Your task to perform on an android device: toggle data saver in the chrome app Image 0: 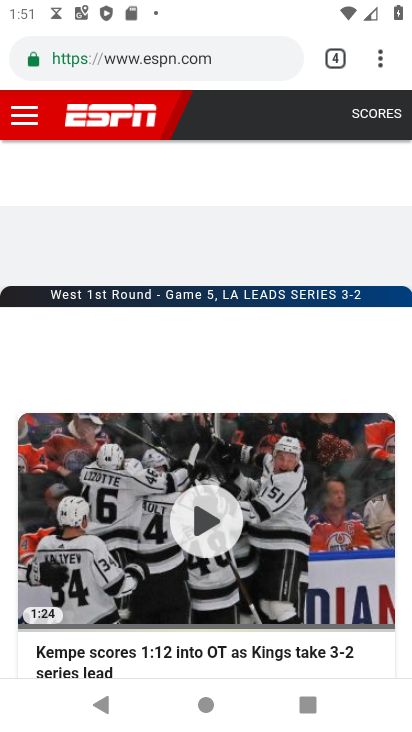
Step 0: press home button
Your task to perform on an android device: toggle data saver in the chrome app Image 1: 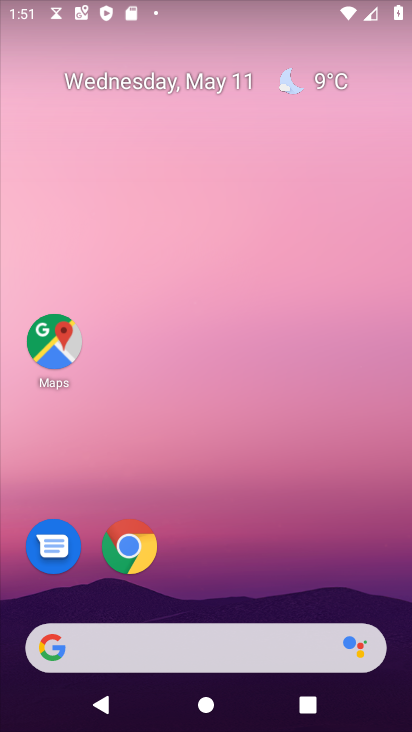
Step 1: drag from (316, 663) to (335, 51)
Your task to perform on an android device: toggle data saver in the chrome app Image 2: 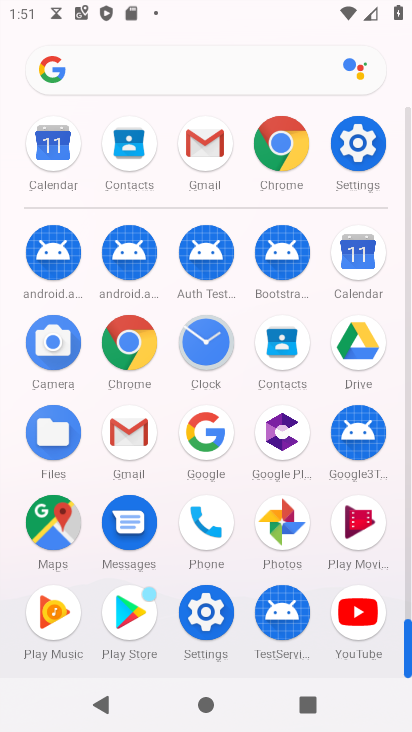
Step 2: click (145, 353)
Your task to perform on an android device: toggle data saver in the chrome app Image 3: 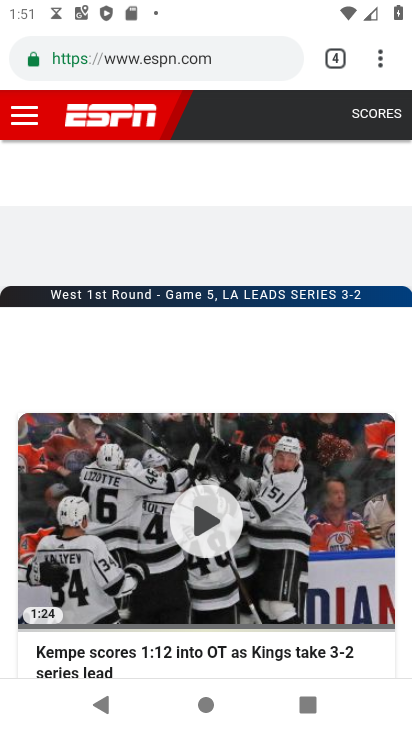
Step 3: click (384, 59)
Your task to perform on an android device: toggle data saver in the chrome app Image 4: 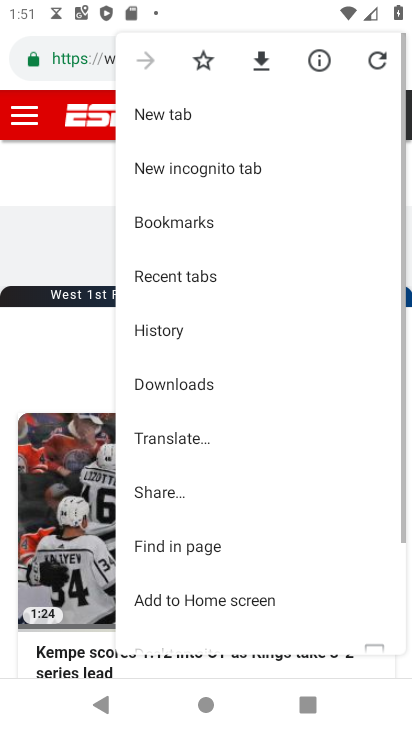
Step 4: drag from (229, 600) to (238, 239)
Your task to perform on an android device: toggle data saver in the chrome app Image 5: 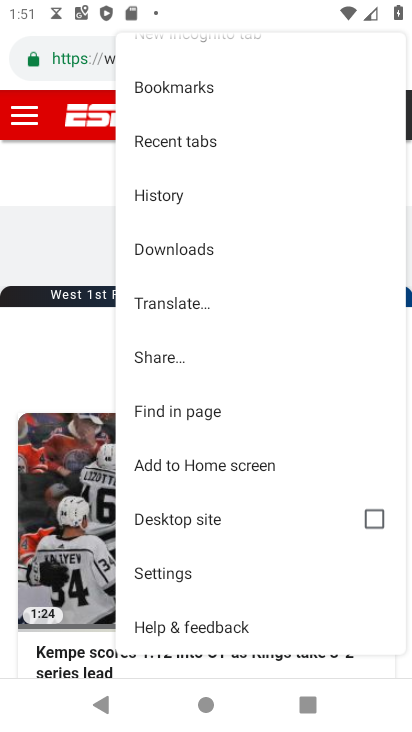
Step 5: click (202, 574)
Your task to perform on an android device: toggle data saver in the chrome app Image 6: 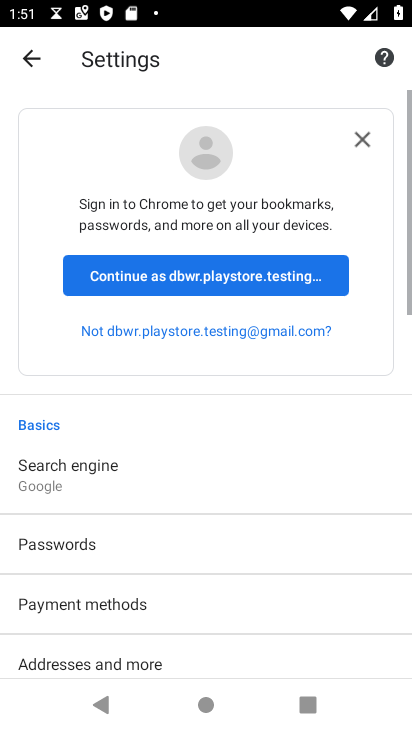
Step 6: drag from (202, 574) to (250, 204)
Your task to perform on an android device: toggle data saver in the chrome app Image 7: 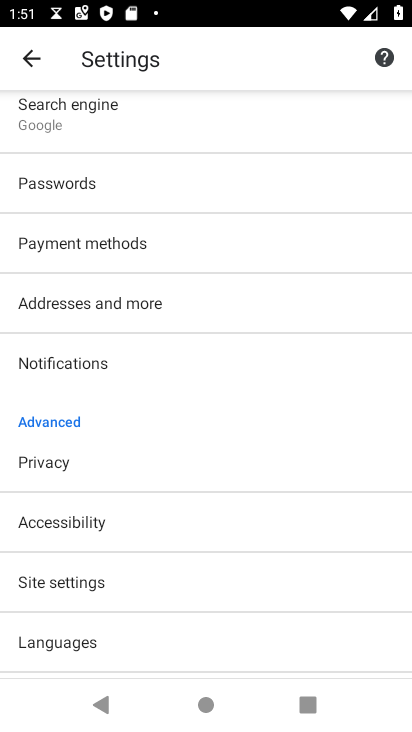
Step 7: drag from (122, 632) to (157, 465)
Your task to perform on an android device: toggle data saver in the chrome app Image 8: 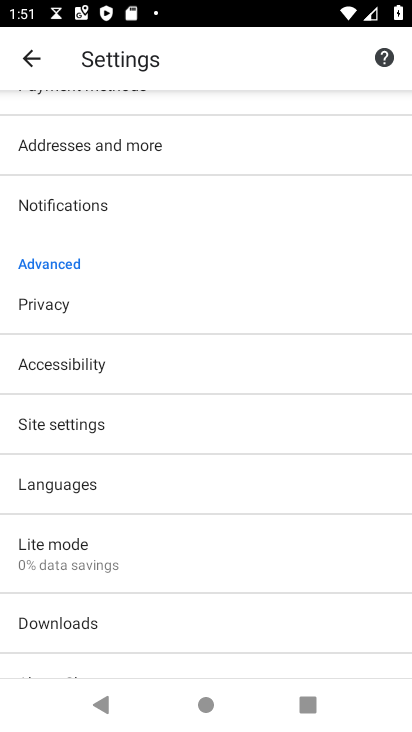
Step 8: click (129, 539)
Your task to perform on an android device: toggle data saver in the chrome app Image 9: 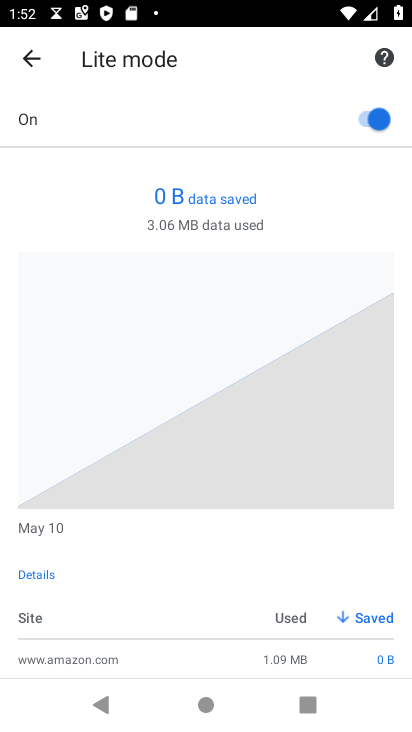
Step 9: click (380, 120)
Your task to perform on an android device: toggle data saver in the chrome app Image 10: 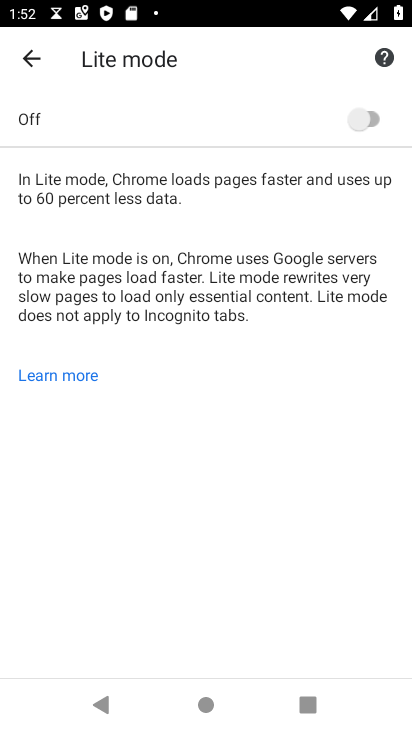
Step 10: task complete